Your task to perform on an android device: turn on airplane mode Image 0: 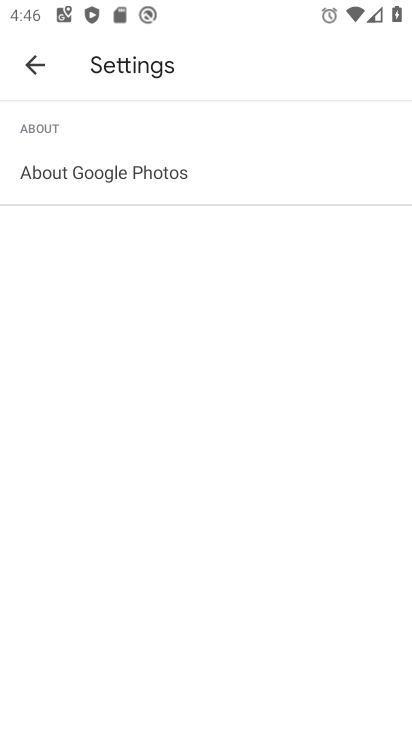
Step 0: press home button
Your task to perform on an android device: turn on airplane mode Image 1: 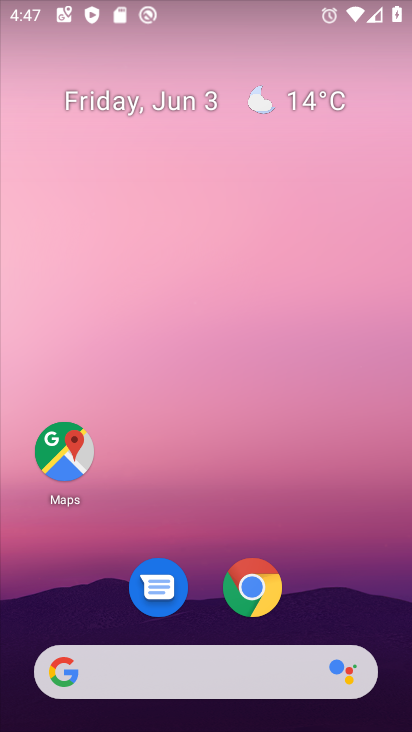
Step 1: drag from (180, 656) to (159, 311)
Your task to perform on an android device: turn on airplane mode Image 2: 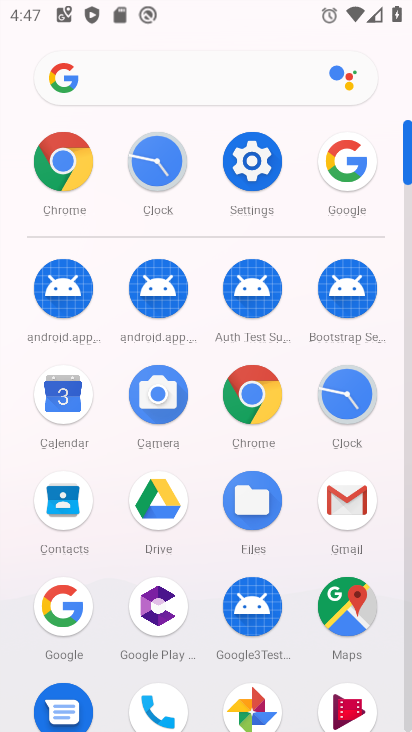
Step 2: click (265, 163)
Your task to perform on an android device: turn on airplane mode Image 3: 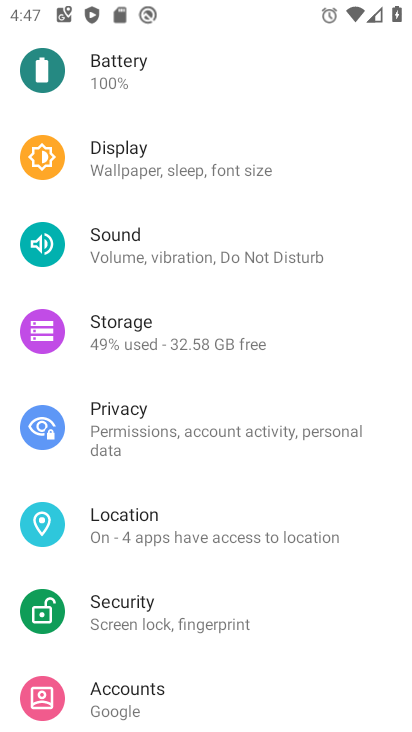
Step 3: drag from (178, 87) to (194, 579)
Your task to perform on an android device: turn on airplane mode Image 4: 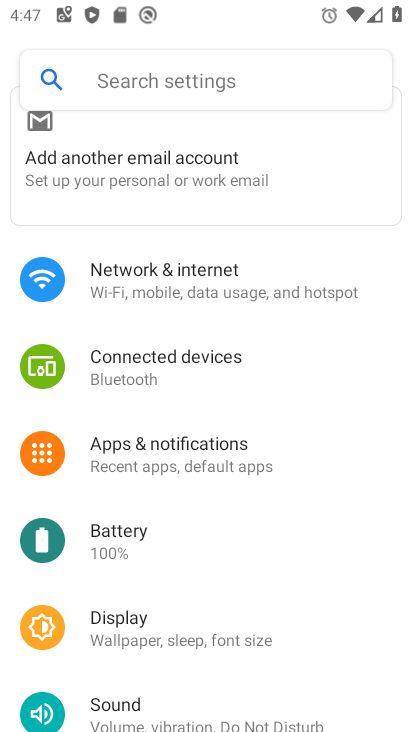
Step 4: click (151, 278)
Your task to perform on an android device: turn on airplane mode Image 5: 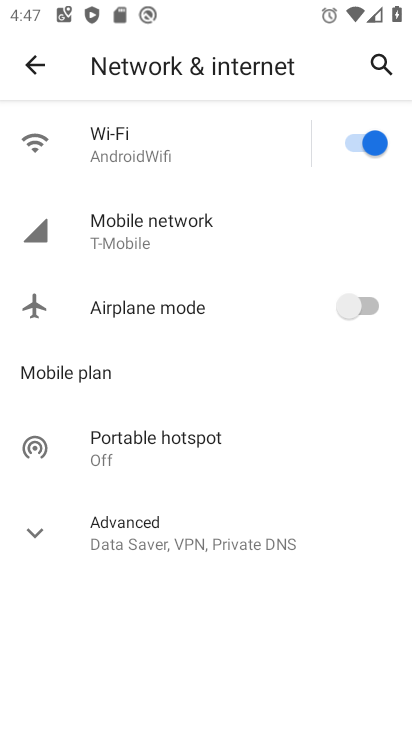
Step 5: click (364, 307)
Your task to perform on an android device: turn on airplane mode Image 6: 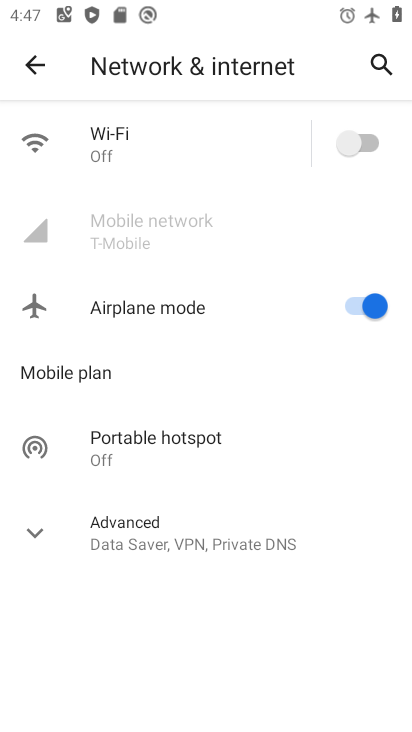
Step 6: task complete